Your task to perform on an android device: When is my next meeting? Image 0: 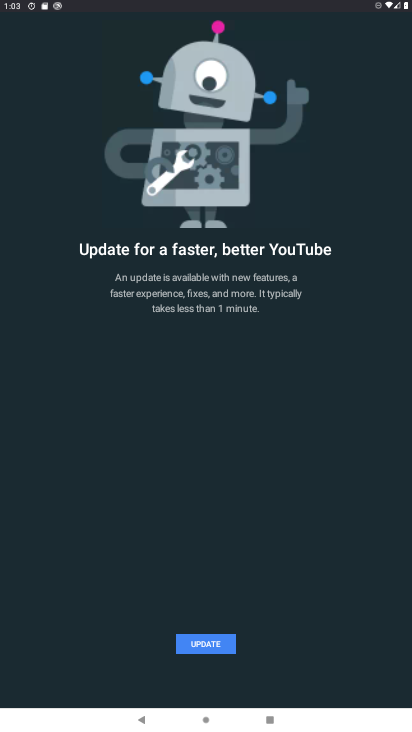
Step 0: press home button
Your task to perform on an android device: When is my next meeting? Image 1: 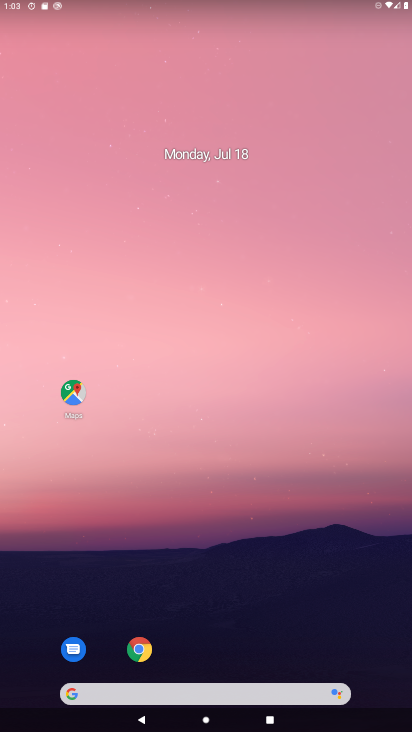
Step 1: drag from (63, 616) to (291, 0)
Your task to perform on an android device: When is my next meeting? Image 2: 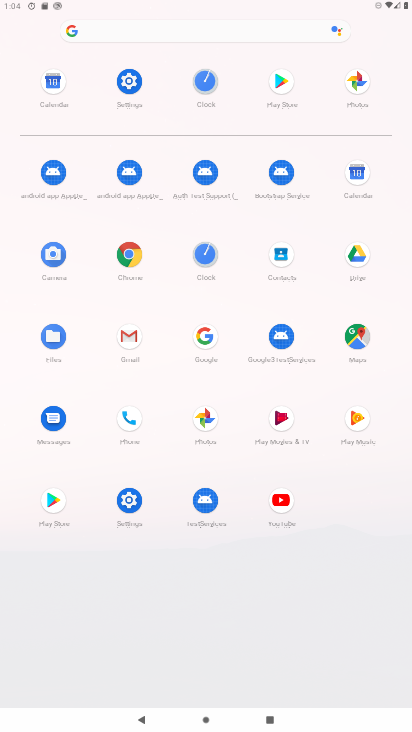
Step 2: click (355, 171)
Your task to perform on an android device: When is my next meeting? Image 3: 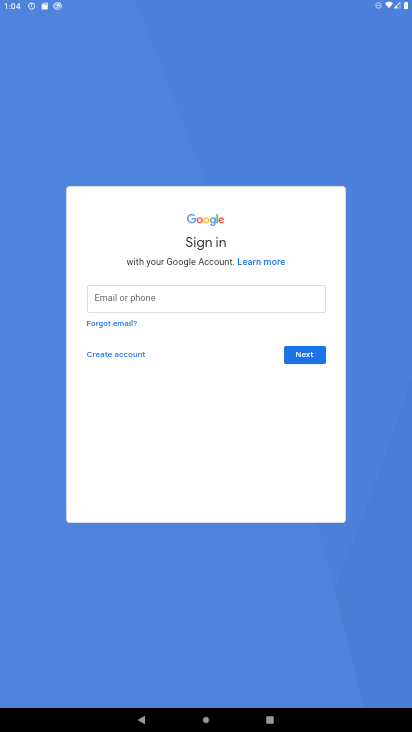
Step 3: task complete